Your task to perform on an android device: create a new album in the google photos Image 0: 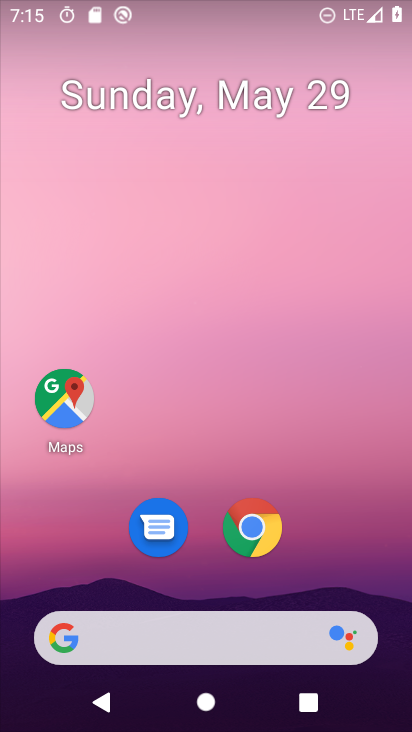
Step 0: drag from (387, 581) to (305, 5)
Your task to perform on an android device: create a new album in the google photos Image 1: 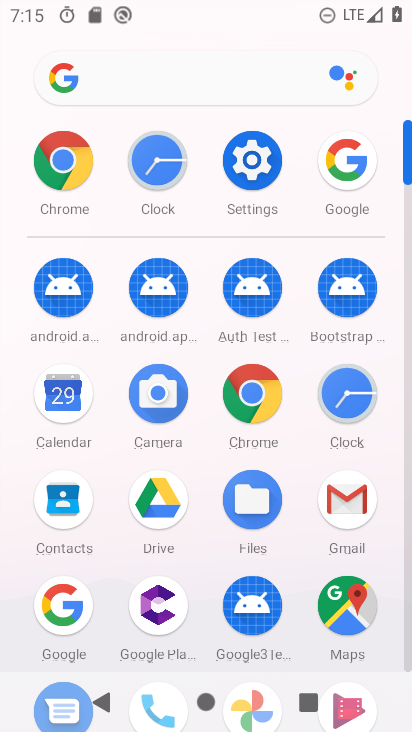
Step 1: drag from (261, 667) to (214, 86)
Your task to perform on an android device: create a new album in the google photos Image 2: 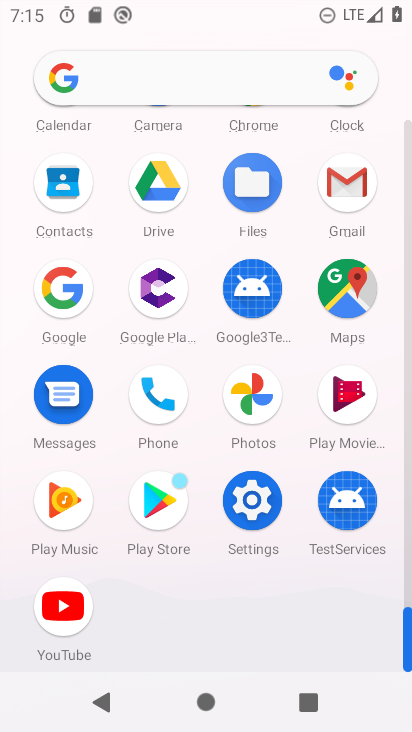
Step 2: click (262, 414)
Your task to perform on an android device: create a new album in the google photos Image 3: 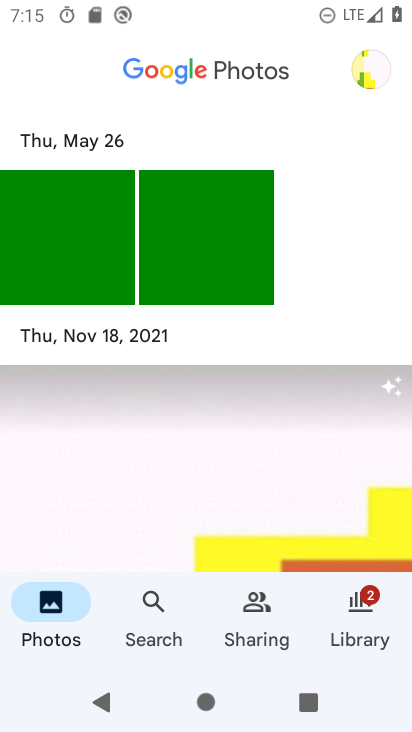
Step 3: click (38, 255)
Your task to perform on an android device: create a new album in the google photos Image 4: 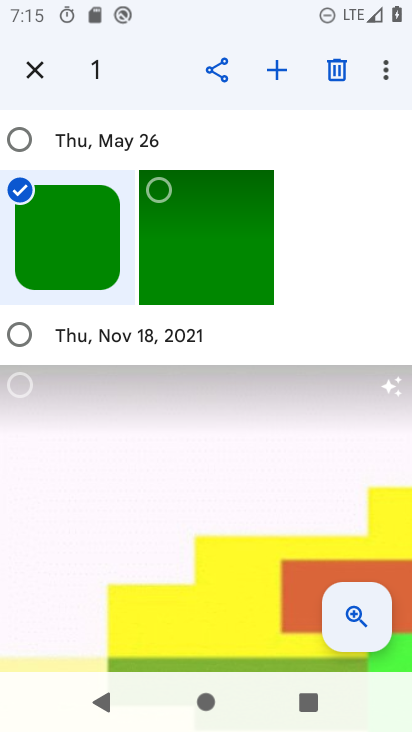
Step 4: click (271, 66)
Your task to perform on an android device: create a new album in the google photos Image 5: 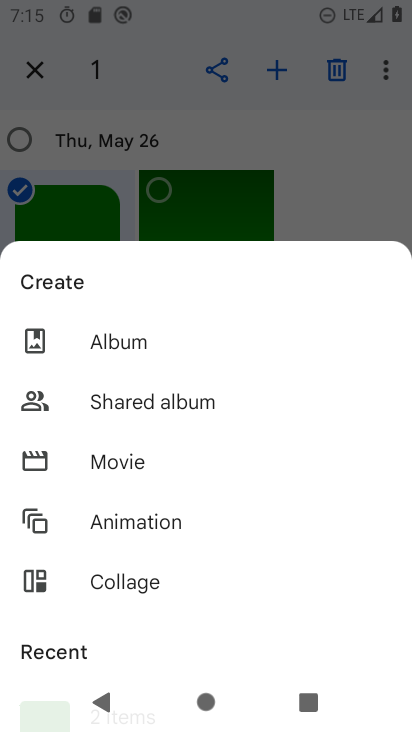
Step 5: click (124, 358)
Your task to perform on an android device: create a new album in the google photos Image 6: 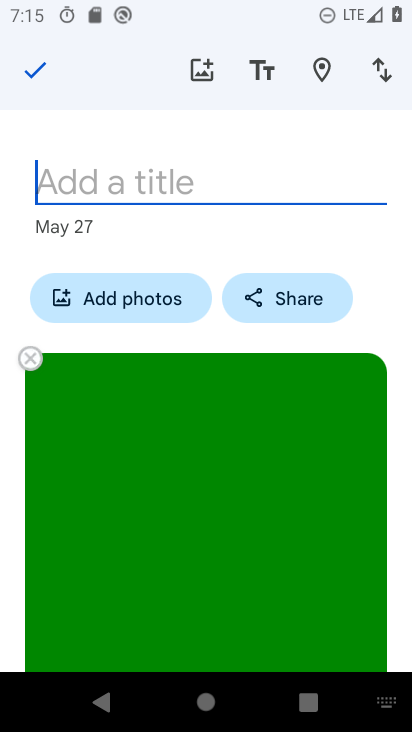
Step 6: type "Nsssss"
Your task to perform on an android device: create a new album in the google photos Image 7: 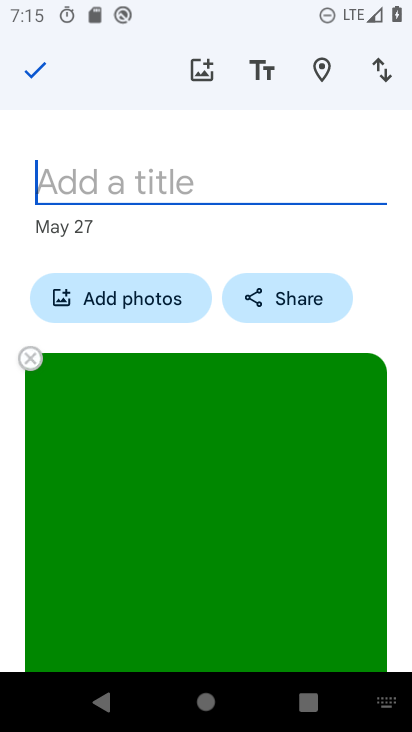
Step 7: click (33, 62)
Your task to perform on an android device: create a new album in the google photos Image 8: 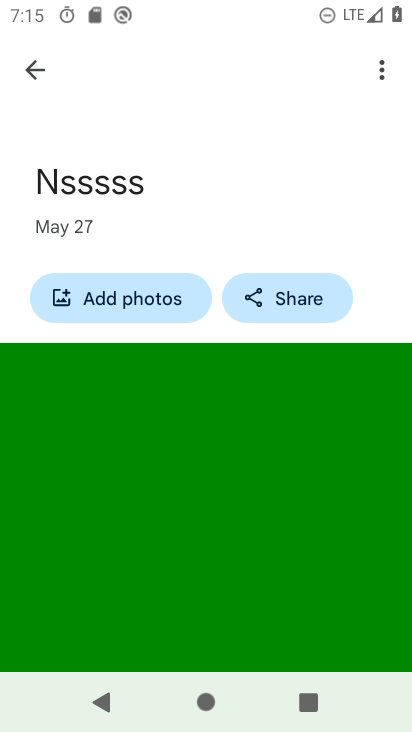
Step 8: task complete